Your task to perform on an android device: refresh tabs in the chrome app Image 0: 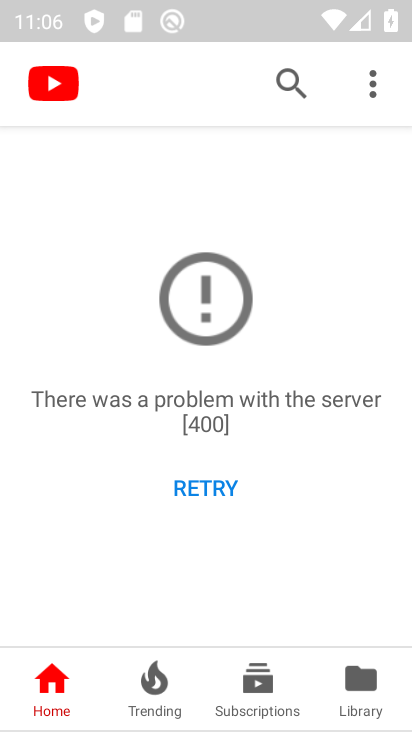
Step 0: click (365, 85)
Your task to perform on an android device: refresh tabs in the chrome app Image 1: 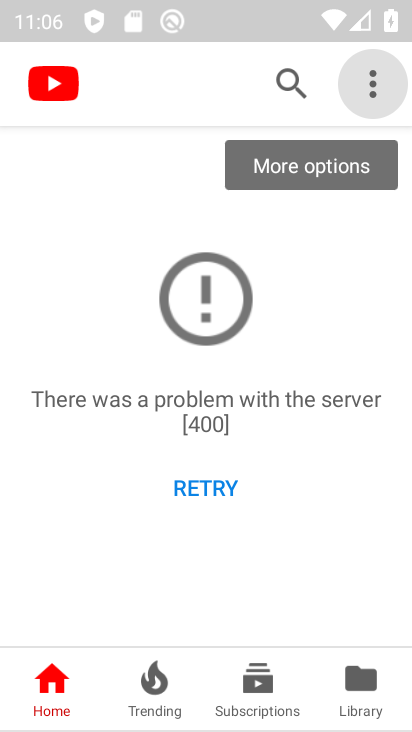
Step 1: click (366, 84)
Your task to perform on an android device: refresh tabs in the chrome app Image 2: 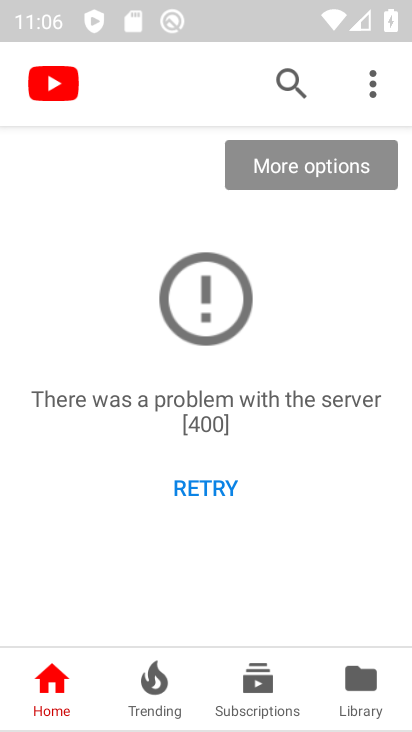
Step 2: click (366, 84)
Your task to perform on an android device: refresh tabs in the chrome app Image 3: 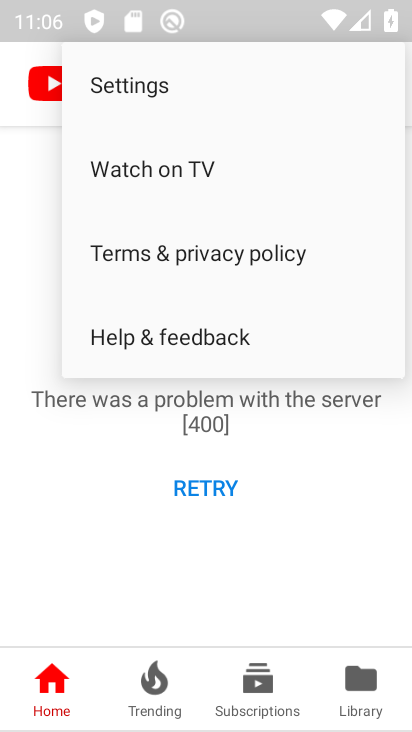
Step 3: press back button
Your task to perform on an android device: refresh tabs in the chrome app Image 4: 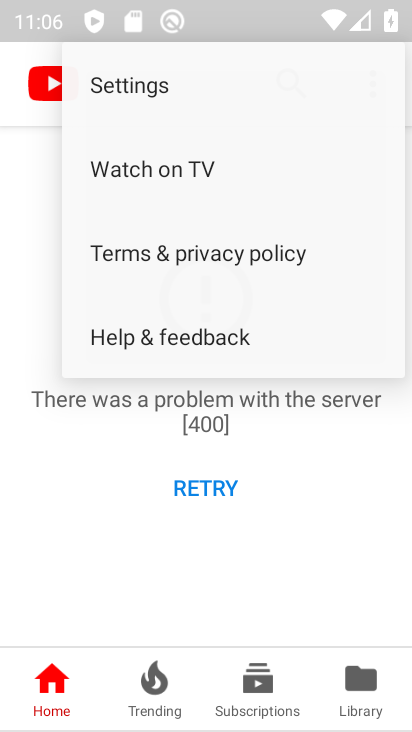
Step 4: press back button
Your task to perform on an android device: refresh tabs in the chrome app Image 5: 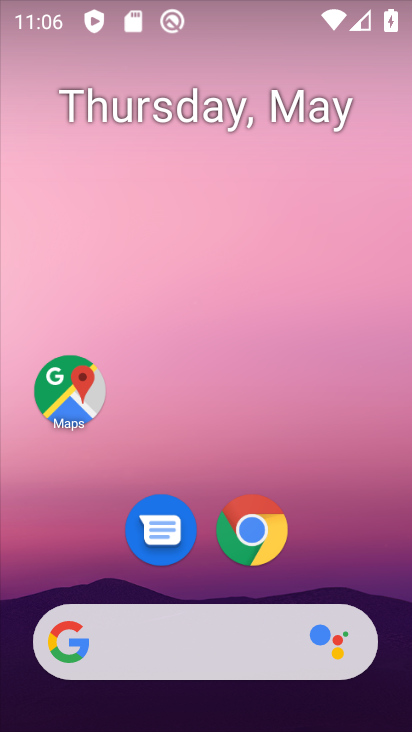
Step 5: drag from (325, 696) to (265, 386)
Your task to perform on an android device: refresh tabs in the chrome app Image 6: 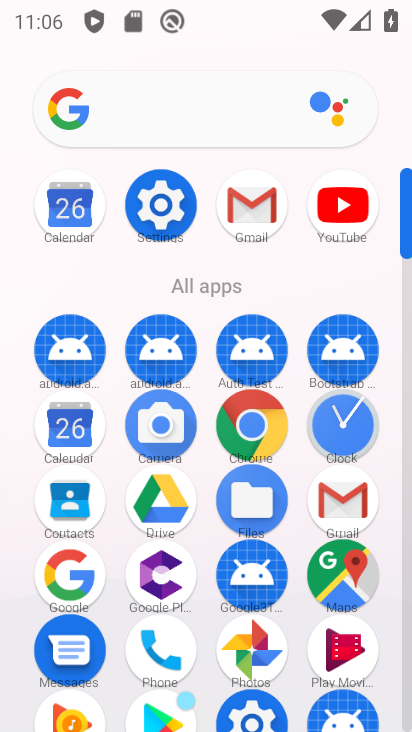
Step 6: click (254, 411)
Your task to perform on an android device: refresh tabs in the chrome app Image 7: 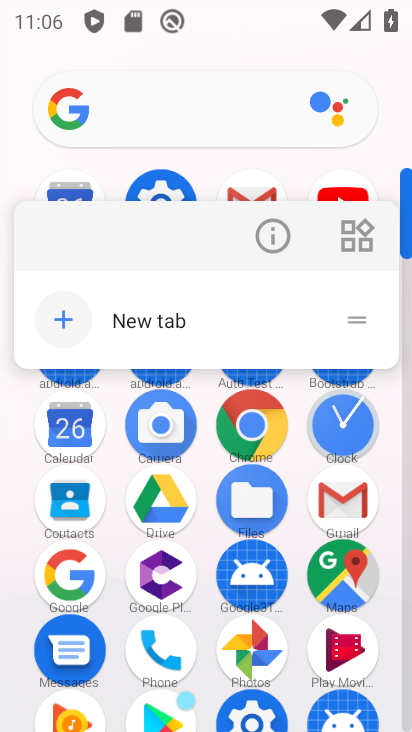
Step 7: click (262, 404)
Your task to perform on an android device: refresh tabs in the chrome app Image 8: 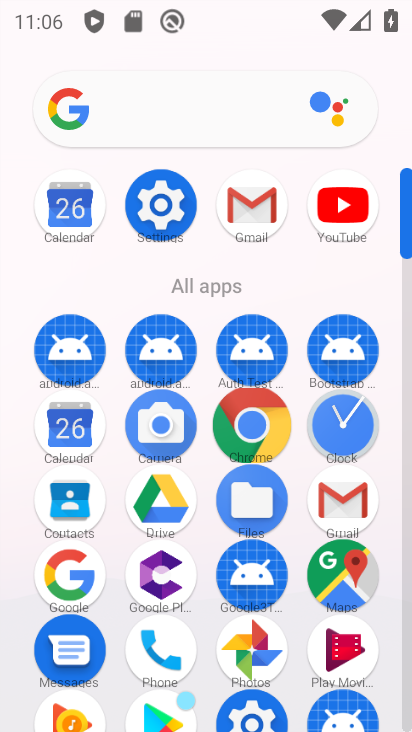
Step 8: click (264, 405)
Your task to perform on an android device: refresh tabs in the chrome app Image 9: 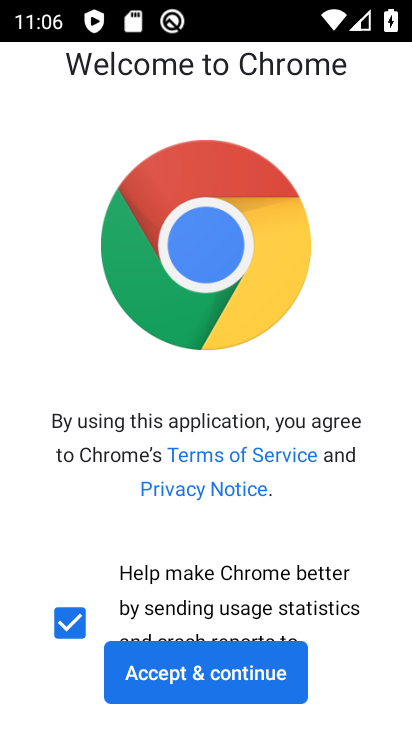
Step 9: click (237, 670)
Your task to perform on an android device: refresh tabs in the chrome app Image 10: 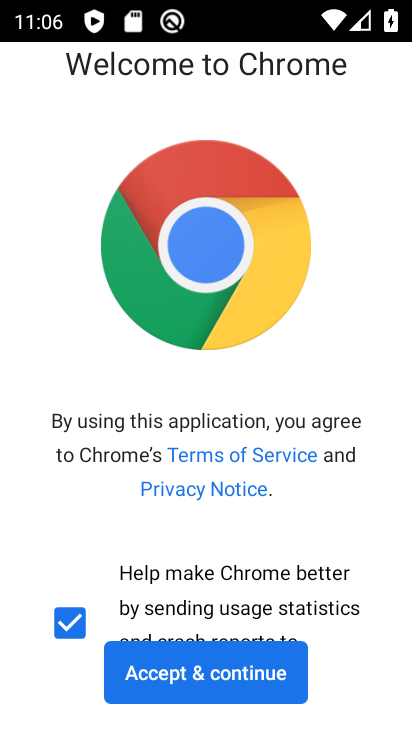
Step 10: click (236, 669)
Your task to perform on an android device: refresh tabs in the chrome app Image 11: 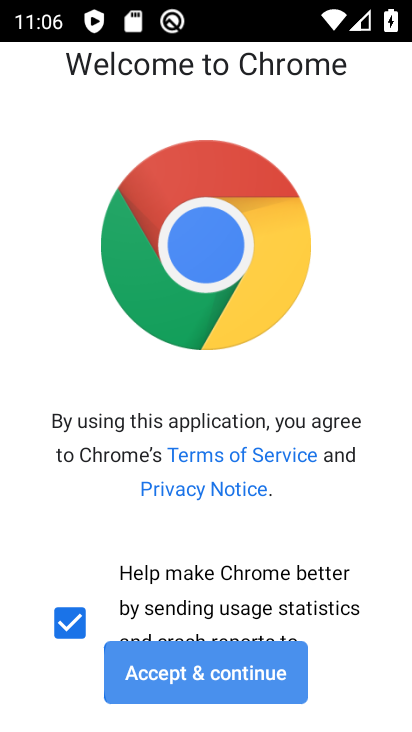
Step 11: click (234, 675)
Your task to perform on an android device: refresh tabs in the chrome app Image 12: 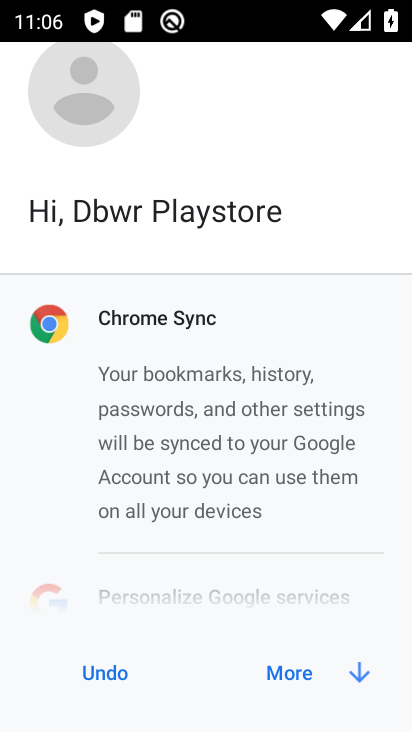
Step 12: click (226, 674)
Your task to perform on an android device: refresh tabs in the chrome app Image 13: 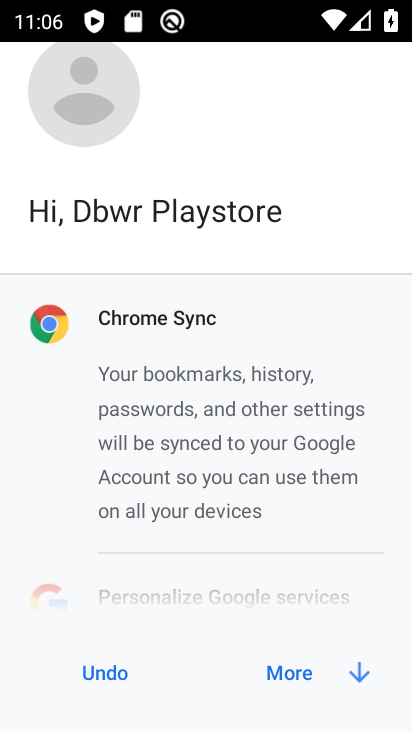
Step 13: click (263, 661)
Your task to perform on an android device: refresh tabs in the chrome app Image 14: 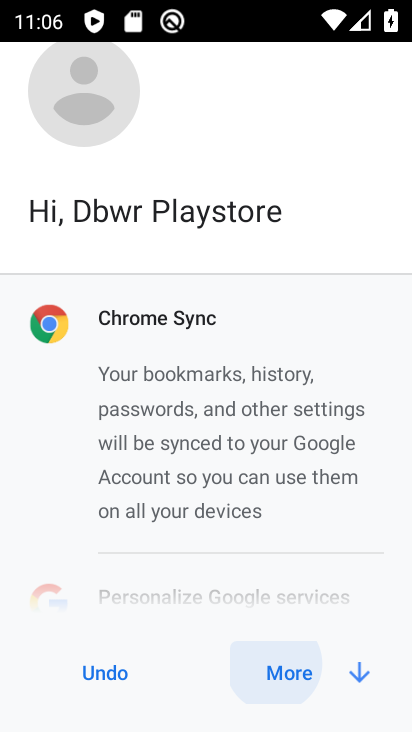
Step 14: click (266, 662)
Your task to perform on an android device: refresh tabs in the chrome app Image 15: 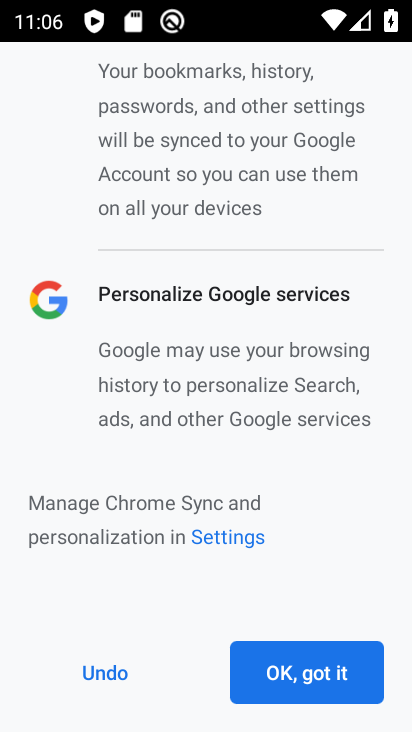
Step 15: click (278, 672)
Your task to perform on an android device: refresh tabs in the chrome app Image 16: 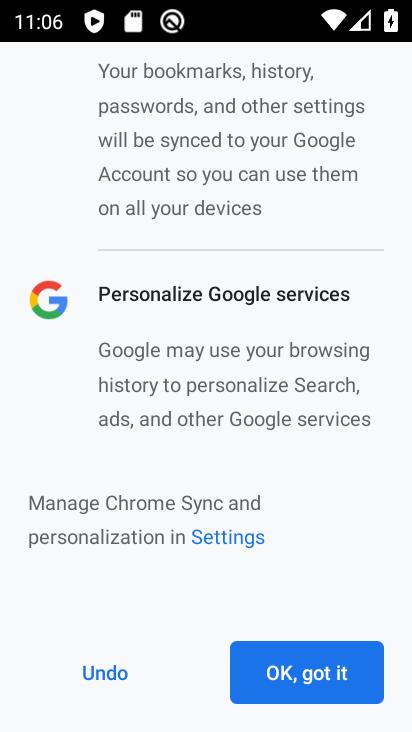
Step 16: click (284, 672)
Your task to perform on an android device: refresh tabs in the chrome app Image 17: 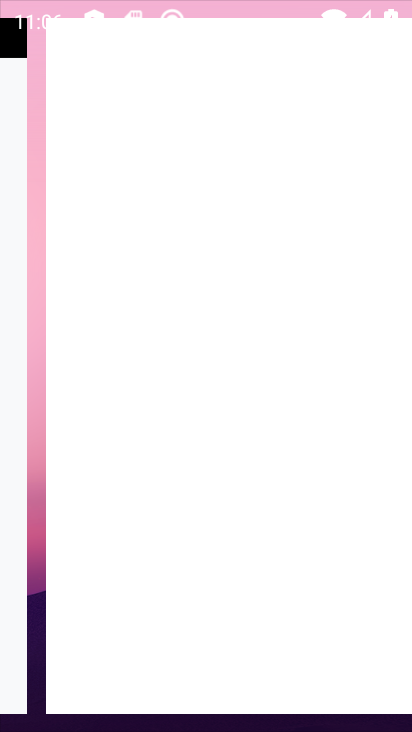
Step 17: click (323, 666)
Your task to perform on an android device: refresh tabs in the chrome app Image 18: 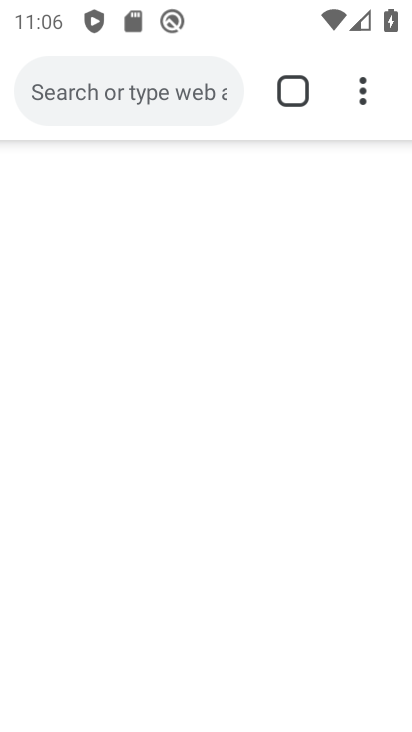
Step 18: click (323, 666)
Your task to perform on an android device: refresh tabs in the chrome app Image 19: 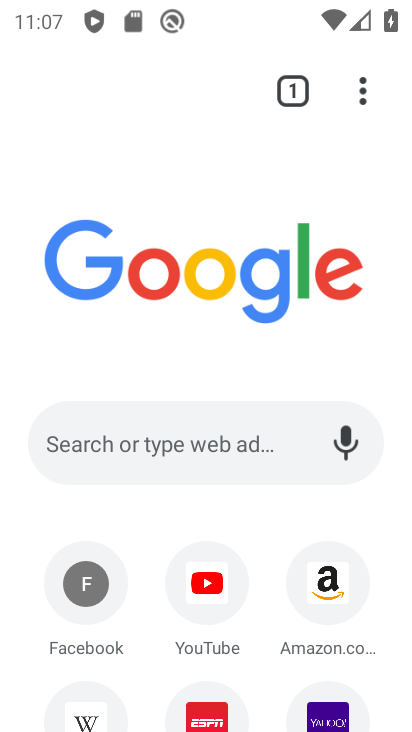
Step 19: drag from (364, 83) to (409, 97)
Your task to perform on an android device: refresh tabs in the chrome app Image 20: 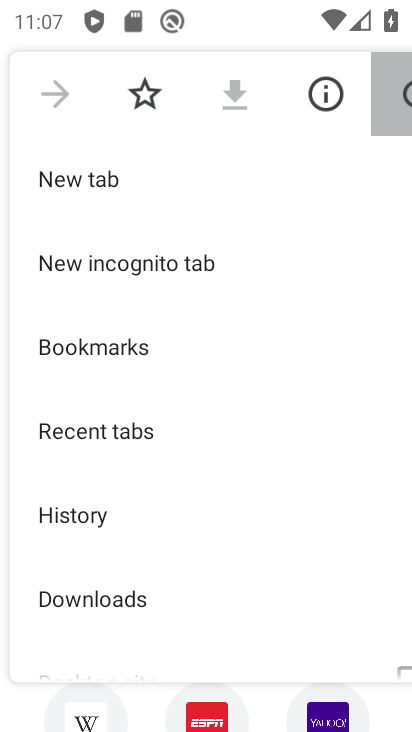
Step 20: click (409, 97)
Your task to perform on an android device: refresh tabs in the chrome app Image 21: 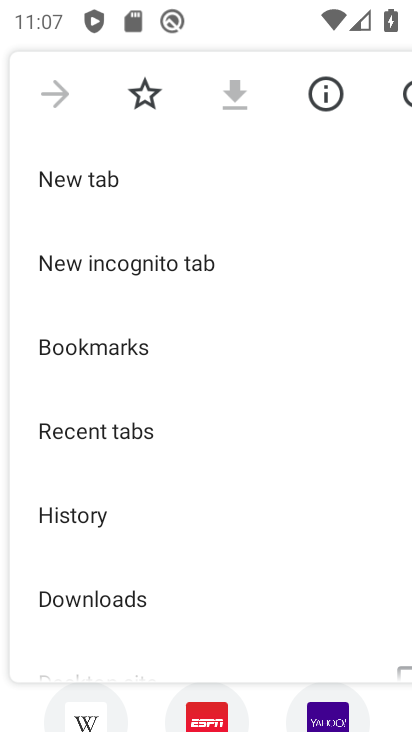
Step 21: click (407, 94)
Your task to perform on an android device: refresh tabs in the chrome app Image 22: 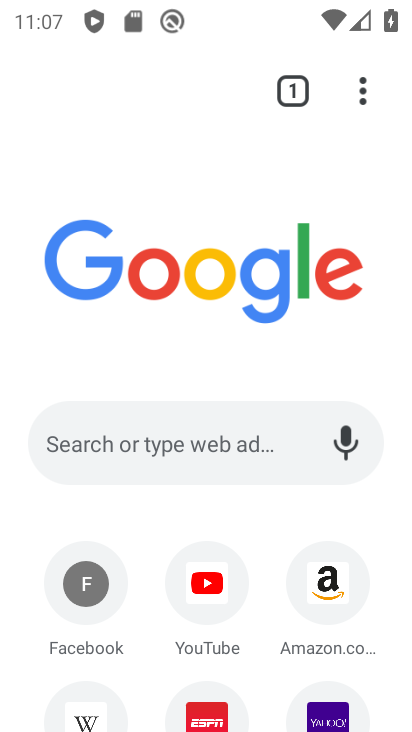
Step 22: task complete